Your task to perform on an android device: Go to Google Image 0: 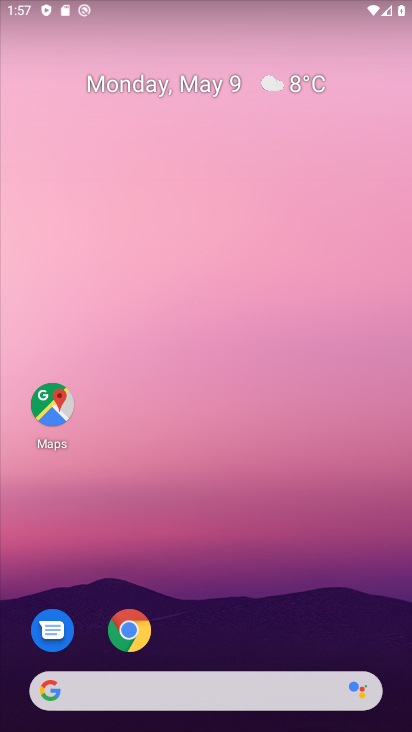
Step 0: drag from (207, 609) to (300, 42)
Your task to perform on an android device: Go to Google Image 1: 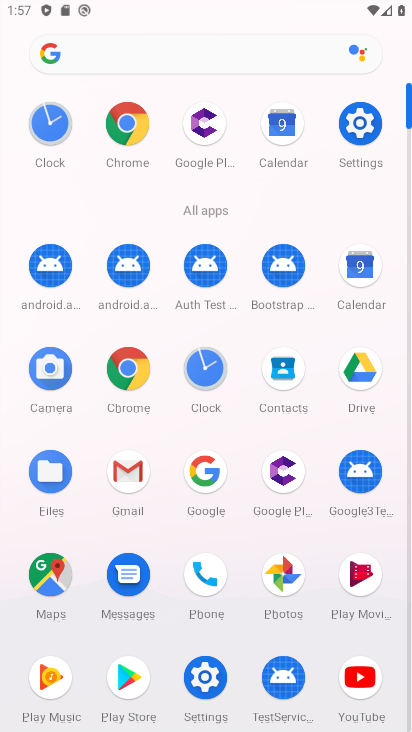
Step 1: click (200, 473)
Your task to perform on an android device: Go to Google Image 2: 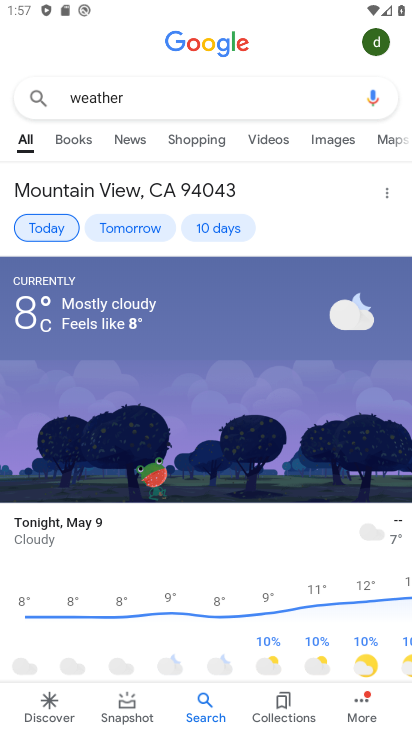
Step 2: task complete